Your task to perform on an android device: Open Google Chrome Image 0: 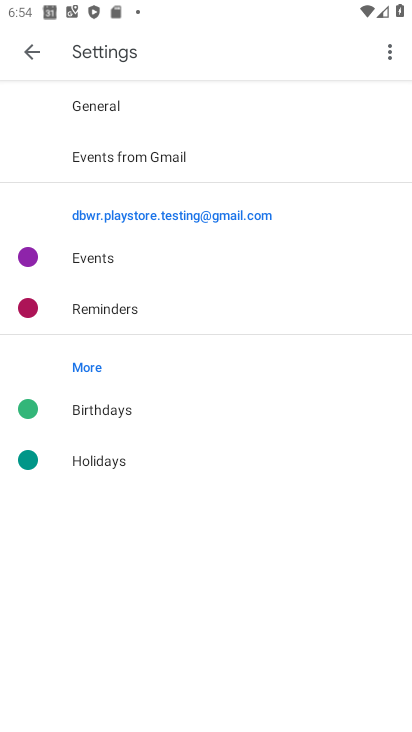
Step 0: press home button
Your task to perform on an android device: Open Google Chrome Image 1: 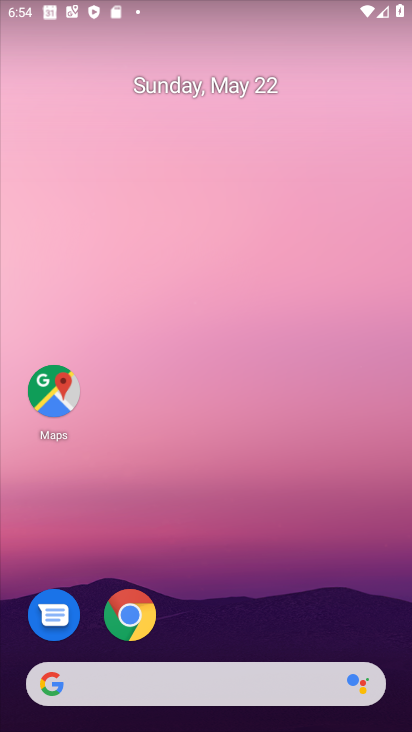
Step 1: click (135, 612)
Your task to perform on an android device: Open Google Chrome Image 2: 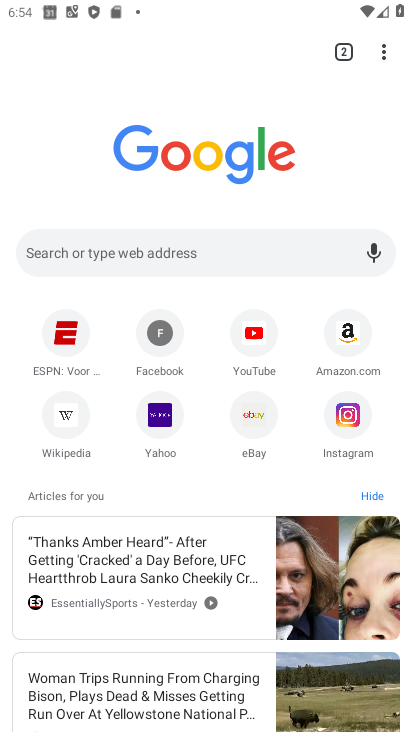
Step 2: click (188, 243)
Your task to perform on an android device: Open Google Chrome Image 3: 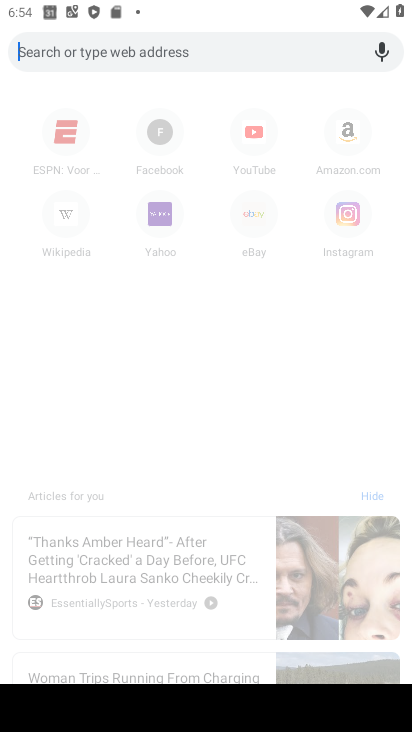
Step 3: task complete